Your task to perform on an android device: Is it going to rain this weekend? Image 0: 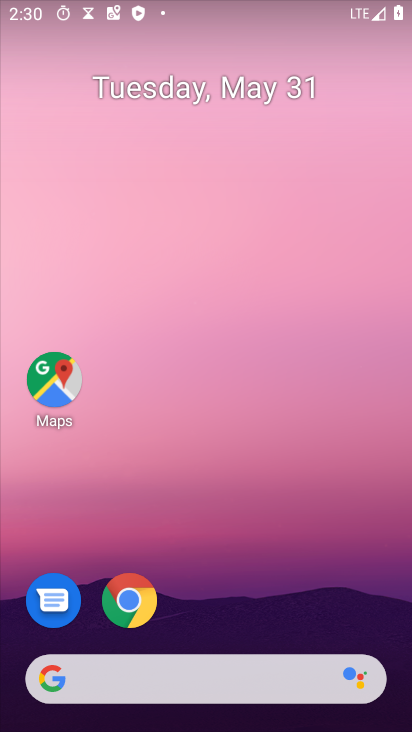
Step 0: press home button
Your task to perform on an android device: Is it going to rain this weekend? Image 1: 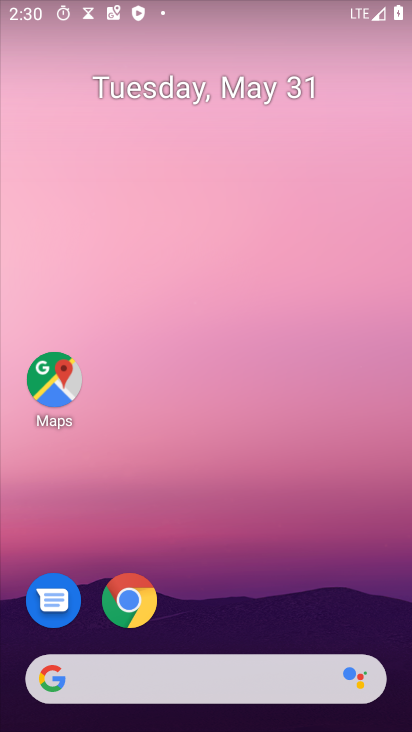
Step 1: drag from (12, 275) to (410, 265)
Your task to perform on an android device: Is it going to rain this weekend? Image 2: 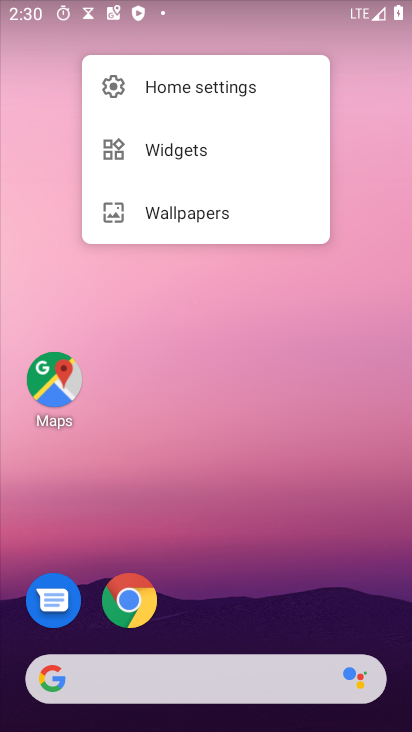
Step 2: click (192, 365)
Your task to perform on an android device: Is it going to rain this weekend? Image 3: 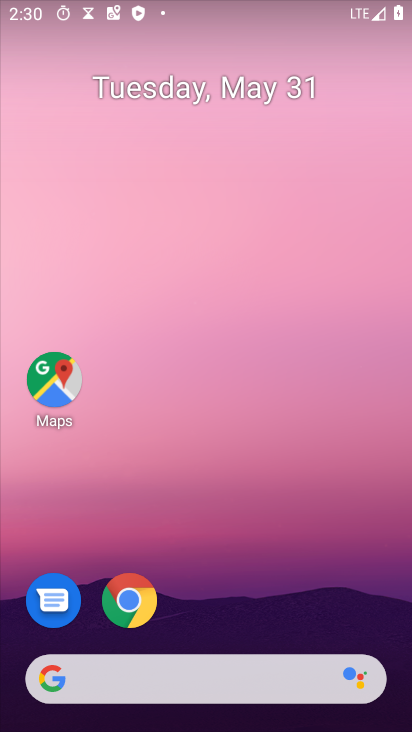
Step 3: click (409, 297)
Your task to perform on an android device: Is it going to rain this weekend? Image 4: 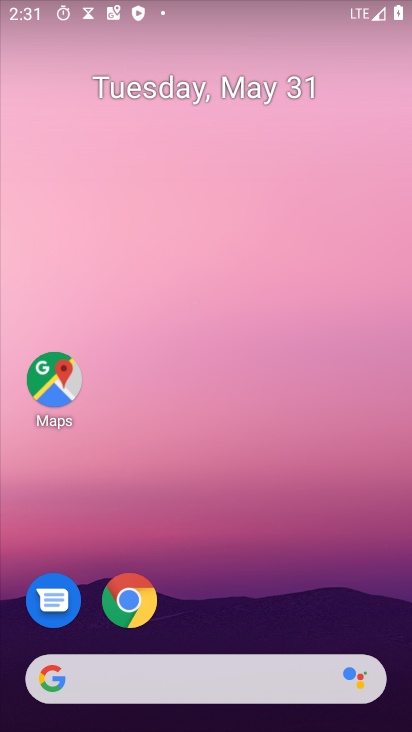
Step 4: drag from (4, 272) to (406, 272)
Your task to perform on an android device: Is it going to rain this weekend? Image 5: 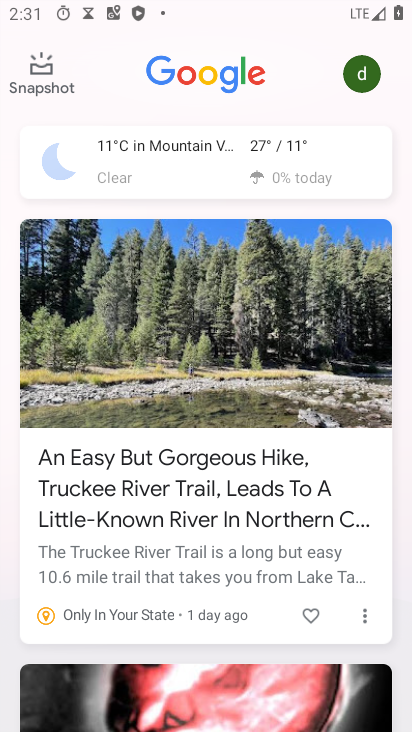
Step 5: click (274, 151)
Your task to perform on an android device: Is it going to rain this weekend? Image 6: 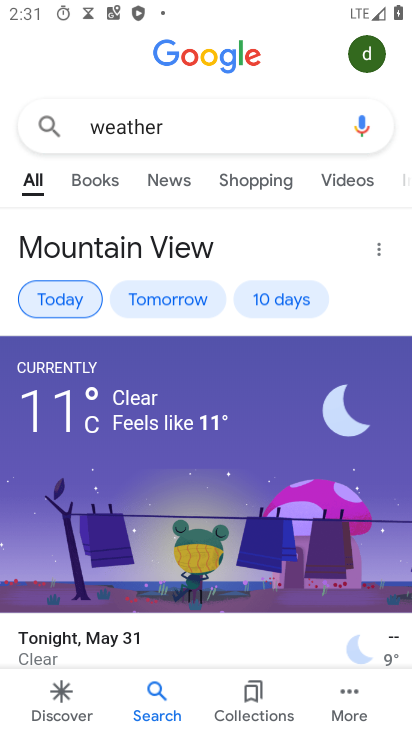
Step 6: click (277, 308)
Your task to perform on an android device: Is it going to rain this weekend? Image 7: 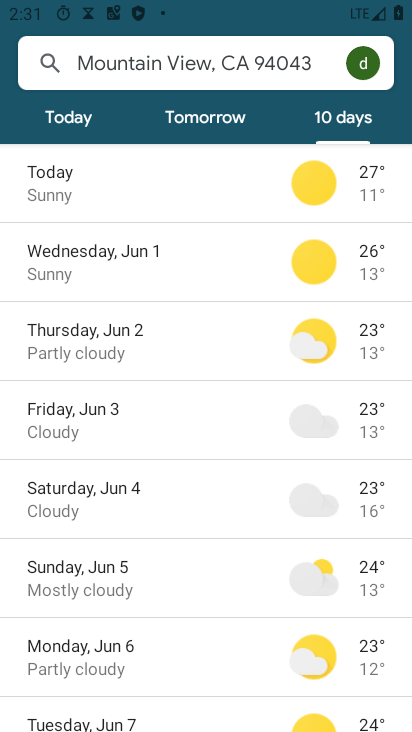
Step 7: task complete